Your task to perform on an android device: turn off improve location accuracy Image 0: 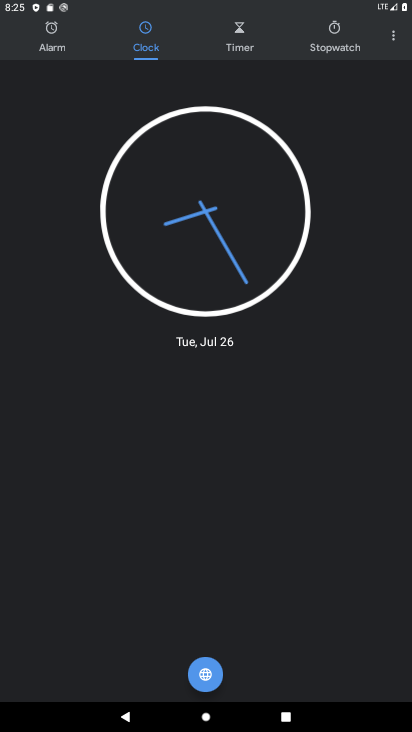
Step 0: press home button
Your task to perform on an android device: turn off improve location accuracy Image 1: 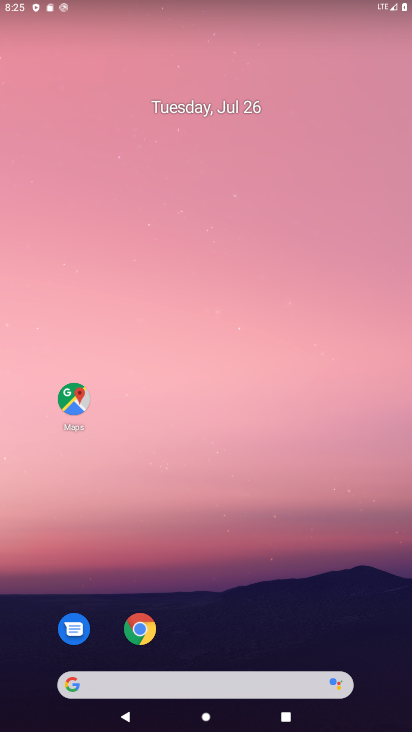
Step 1: drag from (204, 679) to (197, 191)
Your task to perform on an android device: turn off improve location accuracy Image 2: 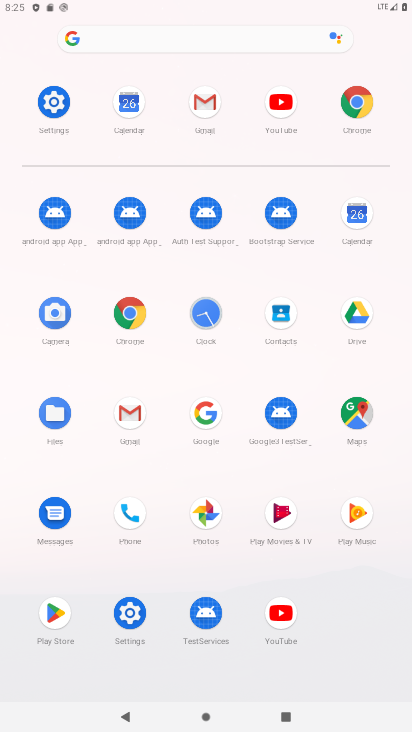
Step 2: click (125, 606)
Your task to perform on an android device: turn off improve location accuracy Image 3: 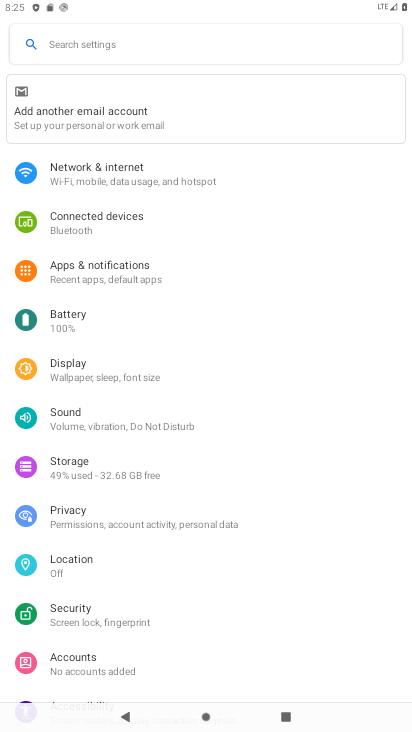
Step 3: click (63, 558)
Your task to perform on an android device: turn off improve location accuracy Image 4: 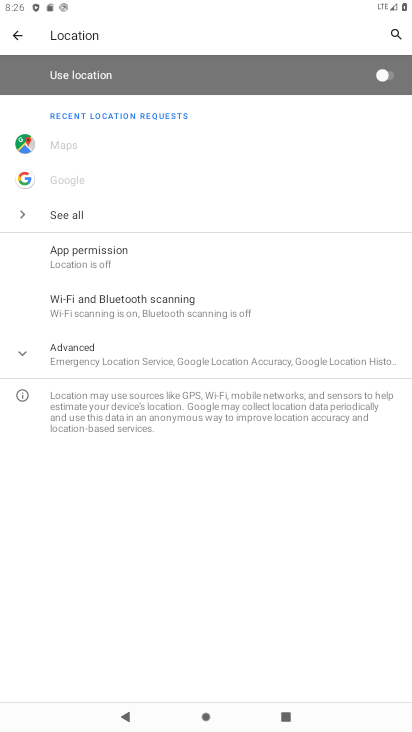
Step 4: click (64, 356)
Your task to perform on an android device: turn off improve location accuracy Image 5: 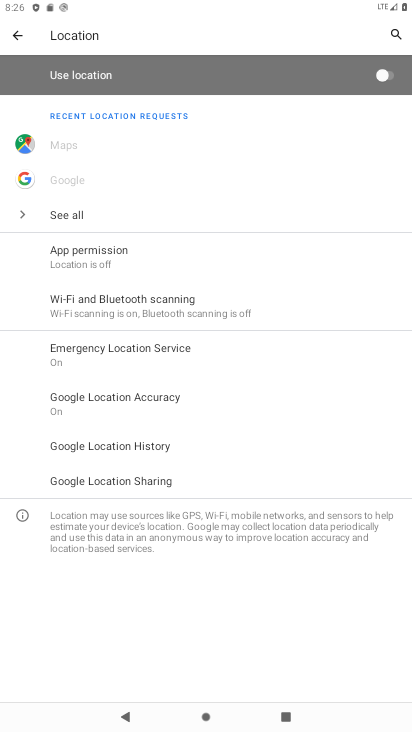
Step 5: click (74, 404)
Your task to perform on an android device: turn off improve location accuracy Image 6: 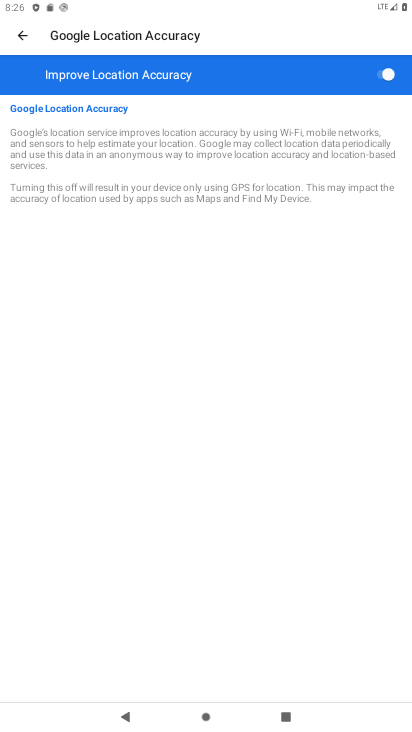
Step 6: click (384, 82)
Your task to perform on an android device: turn off improve location accuracy Image 7: 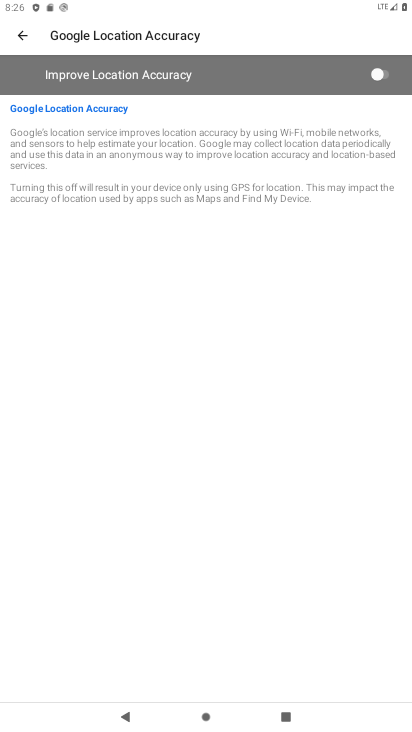
Step 7: task complete